Your task to perform on an android device: change keyboard looks Image 0: 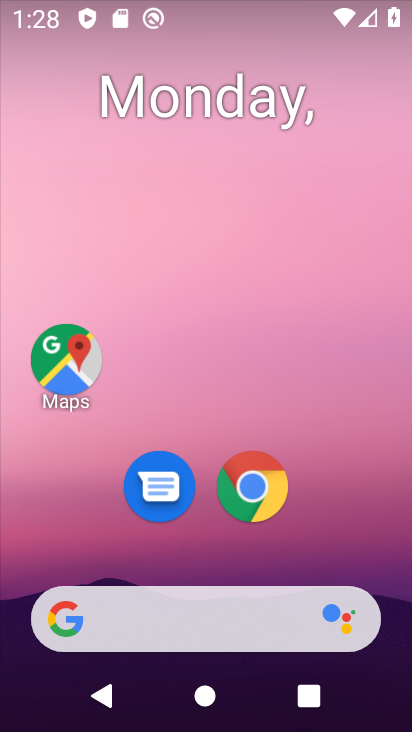
Step 0: drag from (286, 479) to (298, 248)
Your task to perform on an android device: change keyboard looks Image 1: 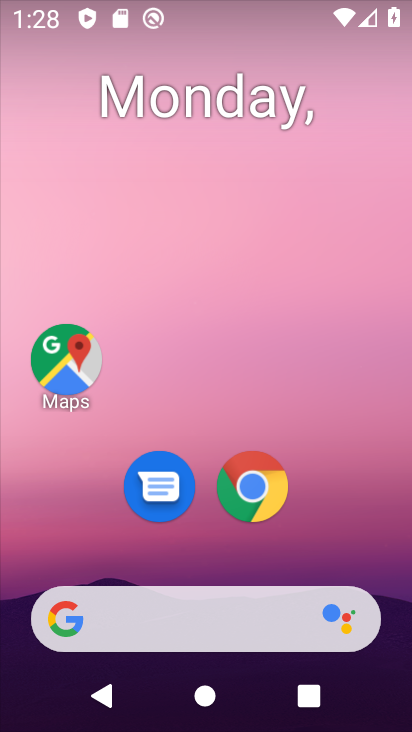
Step 1: drag from (302, 443) to (297, 38)
Your task to perform on an android device: change keyboard looks Image 2: 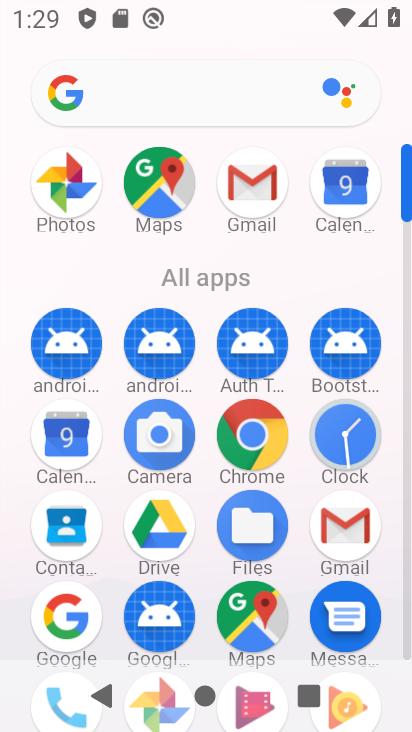
Step 2: drag from (210, 594) to (206, 223)
Your task to perform on an android device: change keyboard looks Image 3: 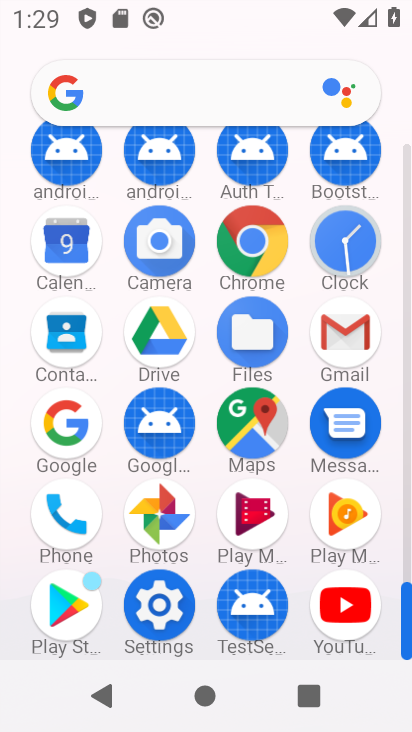
Step 3: click (142, 604)
Your task to perform on an android device: change keyboard looks Image 4: 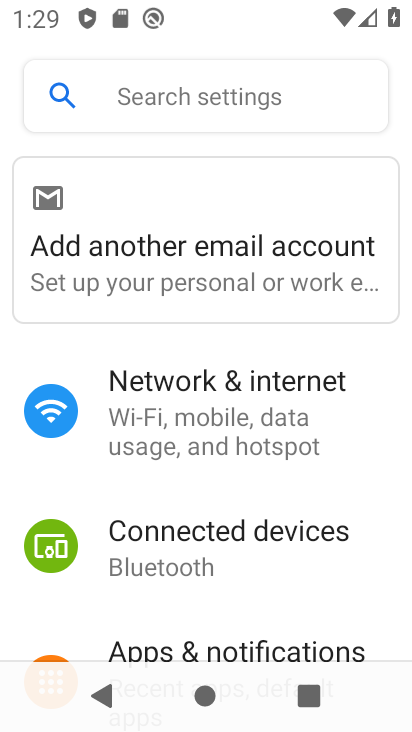
Step 4: drag from (199, 515) to (221, 63)
Your task to perform on an android device: change keyboard looks Image 5: 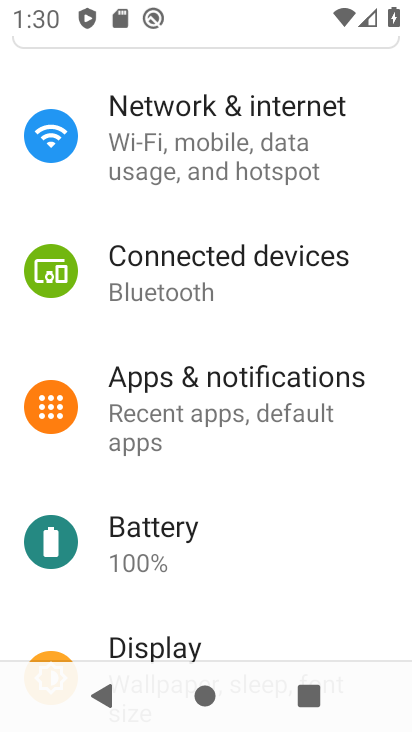
Step 5: drag from (154, 623) to (155, 519)
Your task to perform on an android device: change keyboard looks Image 6: 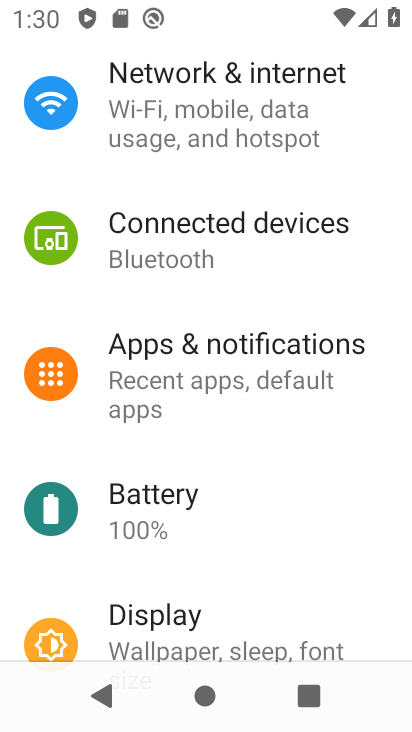
Step 6: drag from (190, 558) to (254, 221)
Your task to perform on an android device: change keyboard looks Image 7: 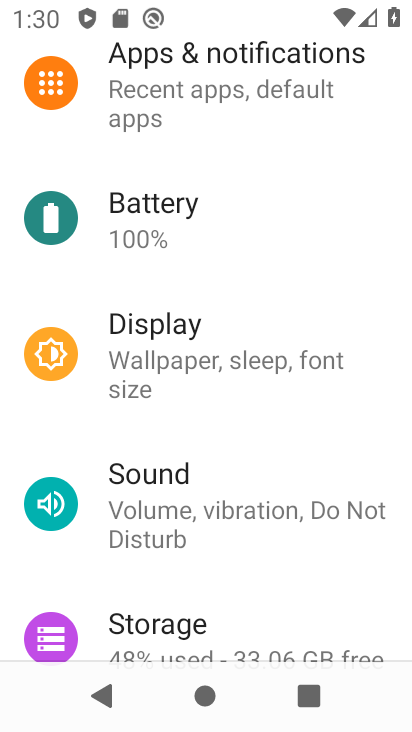
Step 7: drag from (263, 563) to (276, 268)
Your task to perform on an android device: change keyboard looks Image 8: 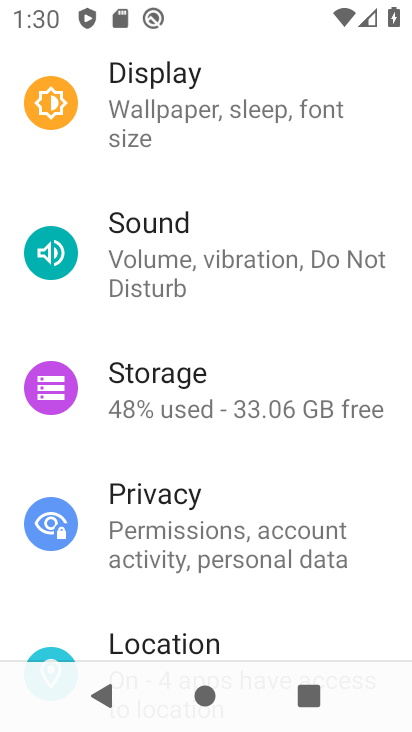
Step 8: drag from (227, 570) to (245, 197)
Your task to perform on an android device: change keyboard looks Image 9: 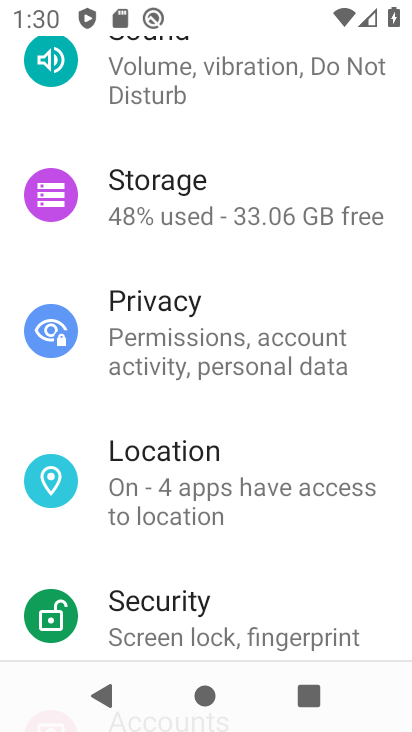
Step 9: drag from (219, 600) to (249, 165)
Your task to perform on an android device: change keyboard looks Image 10: 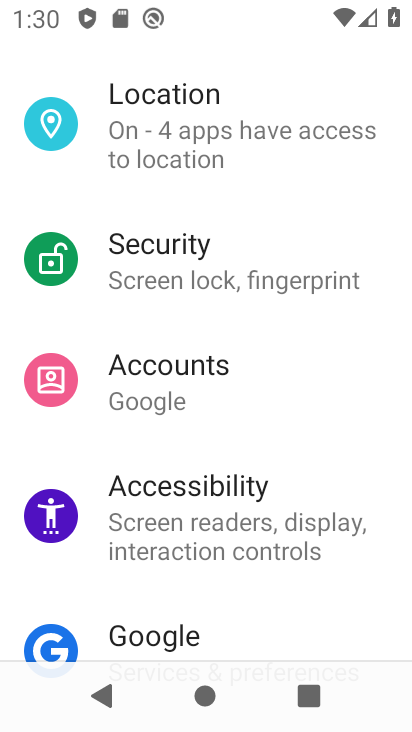
Step 10: drag from (210, 608) to (242, 292)
Your task to perform on an android device: change keyboard looks Image 11: 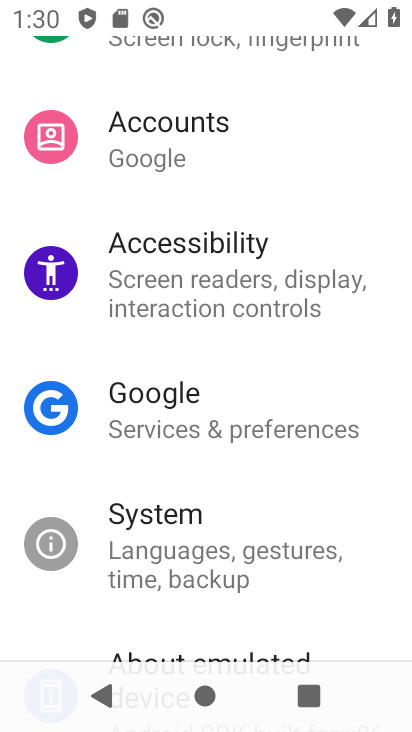
Step 11: click (227, 565)
Your task to perform on an android device: change keyboard looks Image 12: 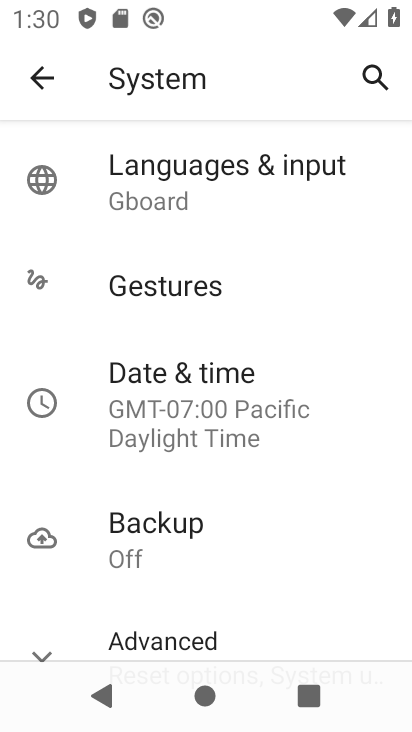
Step 12: drag from (232, 549) to (232, 382)
Your task to perform on an android device: change keyboard looks Image 13: 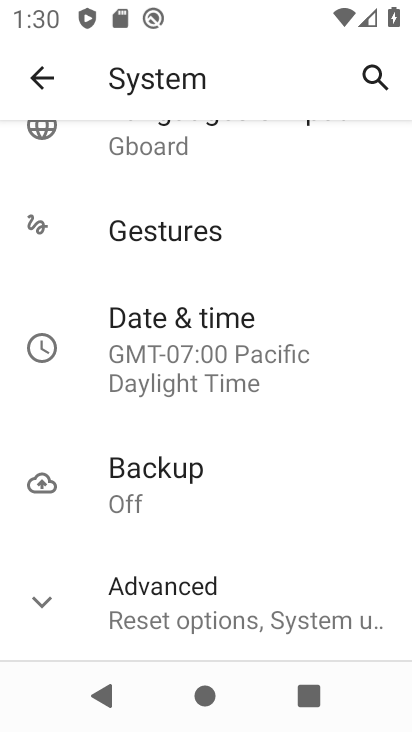
Step 13: drag from (243, 547) to (268, 262)
Your task to perform on an android device: change keyboard looks Image 14: 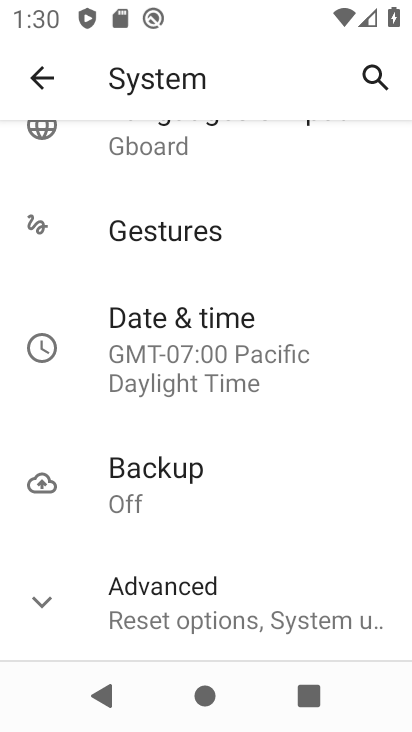
Step 14: drag from (243, 333) to (242, 599)
Your task to perform on an android device: change keyboard looks Image 15: 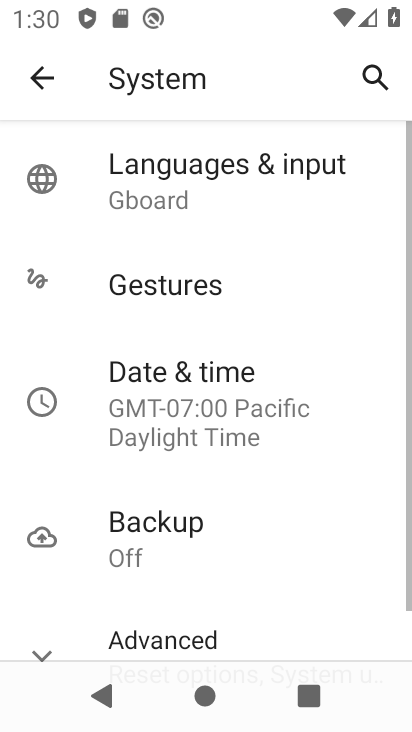
Step 15: click (186, 210)
Your task to perform on an android device: change keyboard looks Image 16: 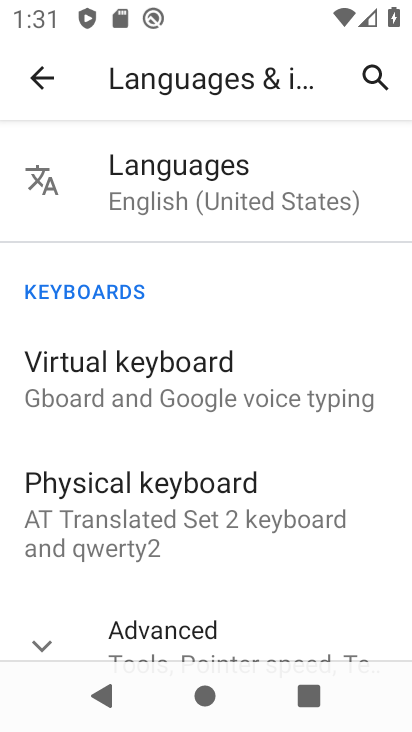
Step 16: drag from (205, 582) to (220, 169)
Your task to perform on an android device: change keyboard looks Image 17: 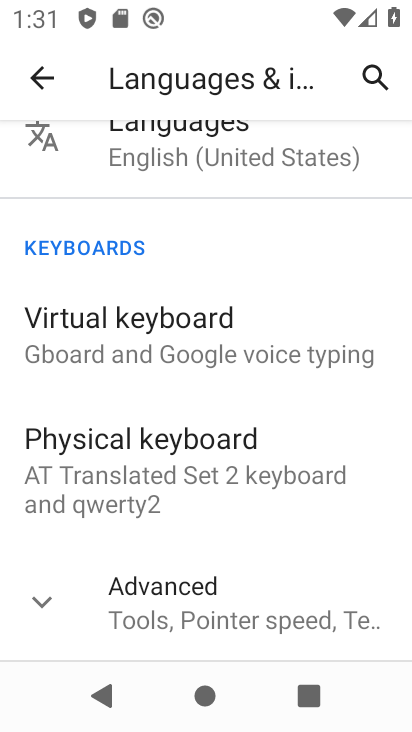
Step 17: drag from (282, 271) to (297, 373)
Your task to perform on an android device: change keyboard looks Image 18: 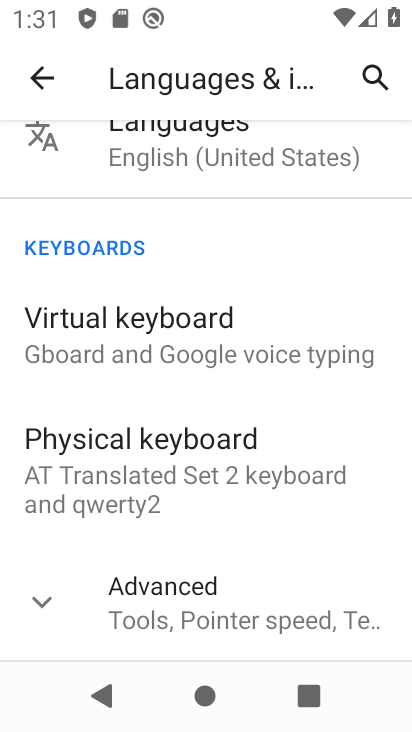
Step 18: click (226, 345)
Your task to perform on an android device: change keyboard looks Image 19: 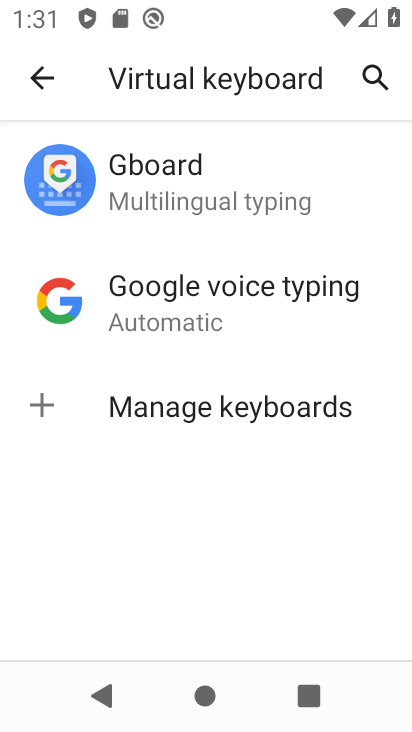
Step 19: click (223, 183)
Your task to perform on an android device: change keyboard looks Image 20: 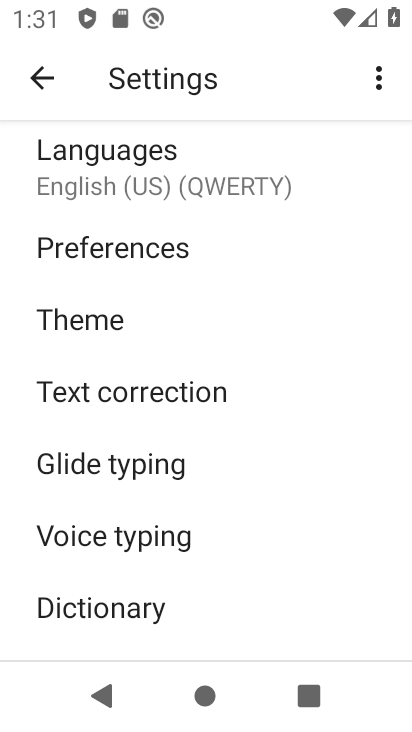
Step 20: click (160, 322)
Your task to perform on an android device: change keyboard looks Image 21: 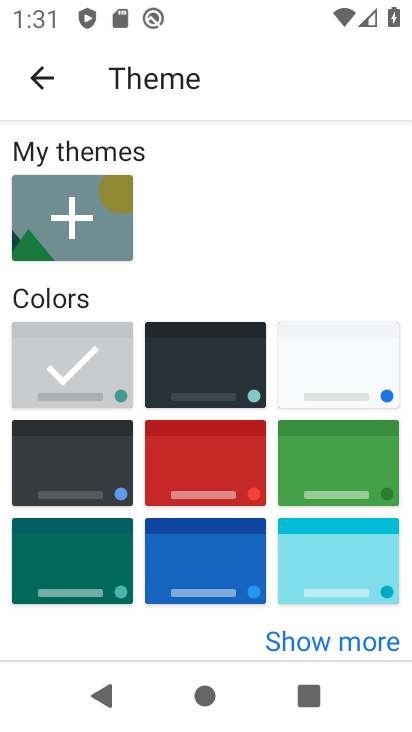
Step 21: click (206, 349)
Your task to perform on an android device: change keyboard looks Image 22: 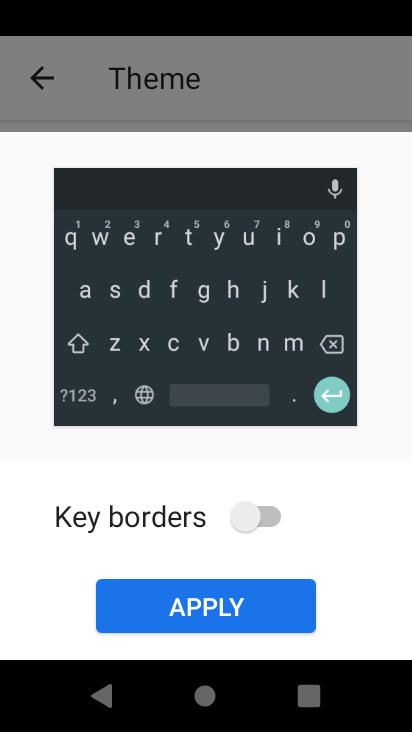
Step 22: click (224, 610)
Your task to perform on an android device: change keyboard looks Image 23: 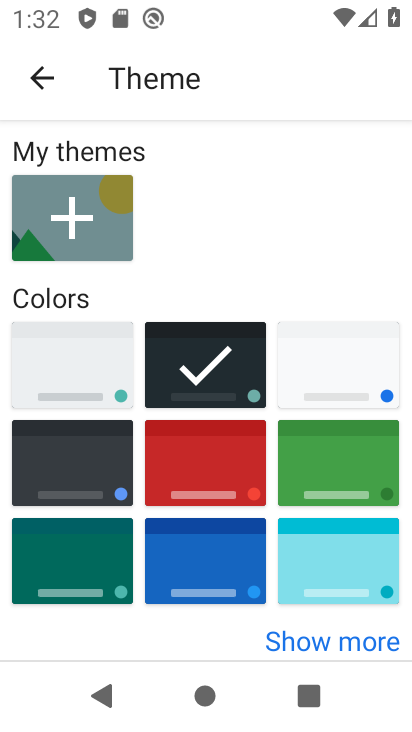
Step 23: task complete